Your task to perform on an android device: Open wifi settings Image 0: 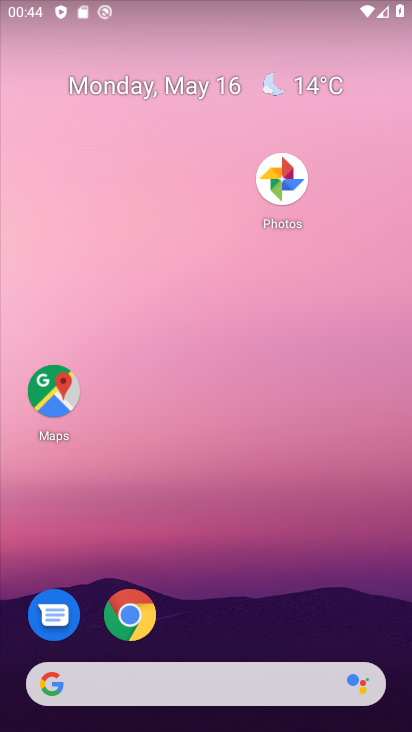
Step 0: drag from (333, 606) to (355, 196)
Your task to perform on an android device: Open wifi settings Image 1: 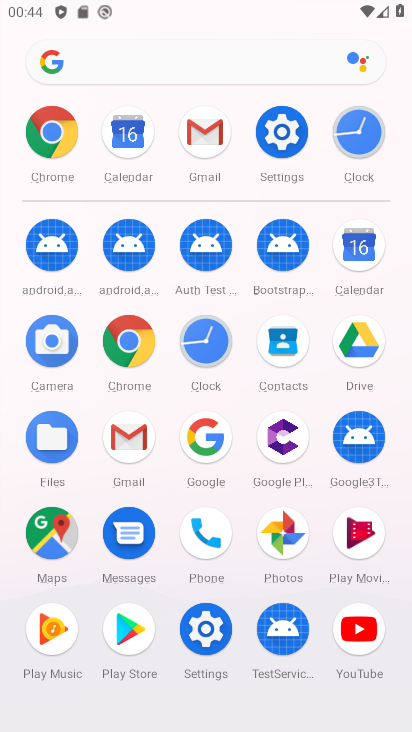
Step 1: click (265, 132)
Your task to perform on an android device: Open wifi settings Image 2: 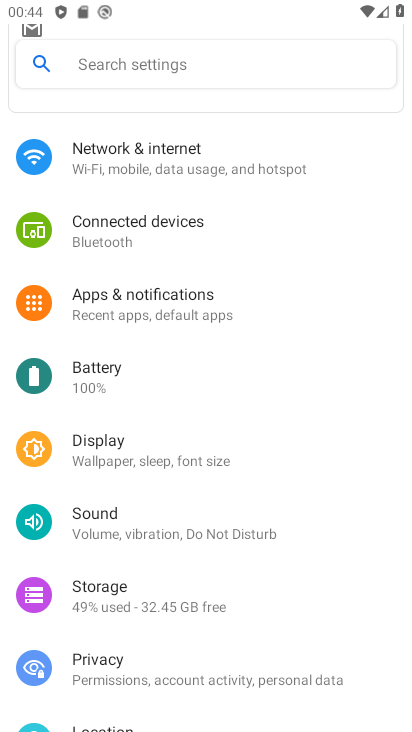
Step 2: click (238, 162)
Your task to perform on an android device: Open wifi settings Image 3: 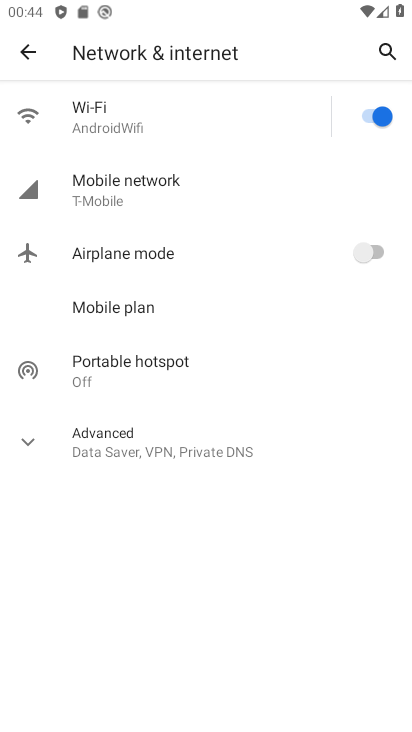
Step 3: click (203, 129)
Your task to perform on an android device: Open wifi settings Image 4: 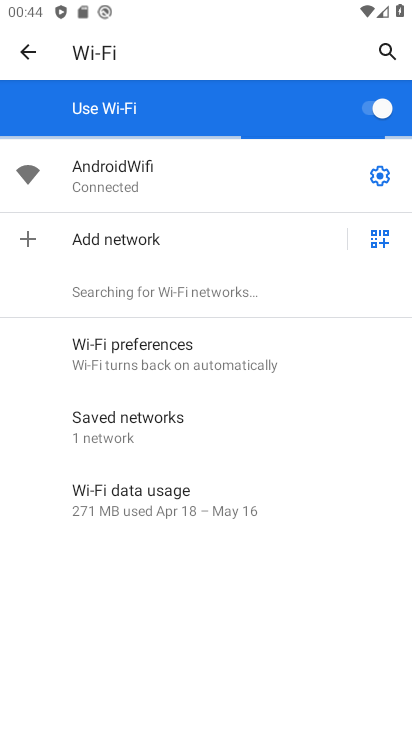
Step 4: click (143, 669)
Your task to perform on an android device: Open wifi settings Image 5: 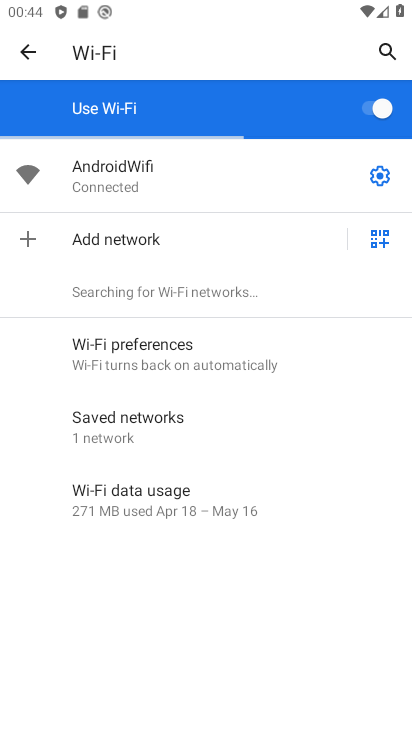
Step 5: task complete